Your task to perform on an android device: Check the news Image 0: 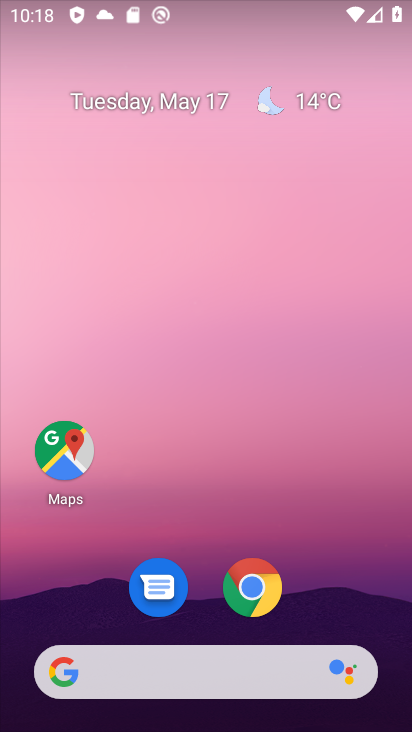
Step 0: click (154, 675)
Your task to perform on an android device: Check the news Image 1: 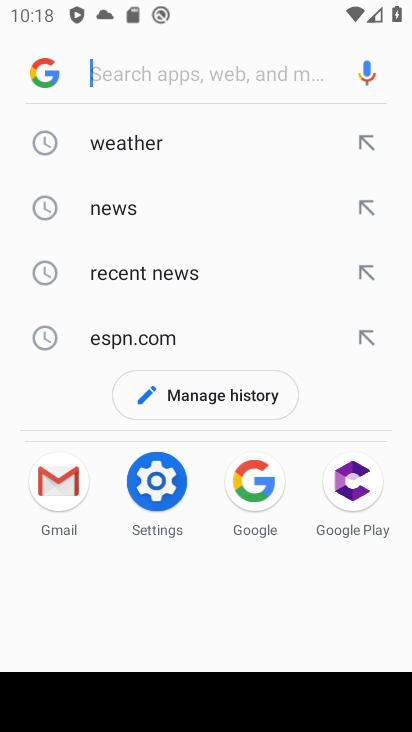
Step 1: click (134, 209)
Your task to perform on an android device: Check the news Image 2: 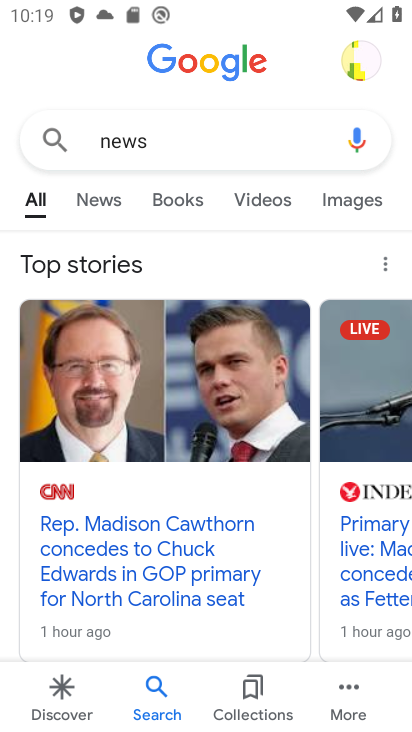
Step 2: click (105, 194)
Your task to perform on an android device: Check the news Image 3: 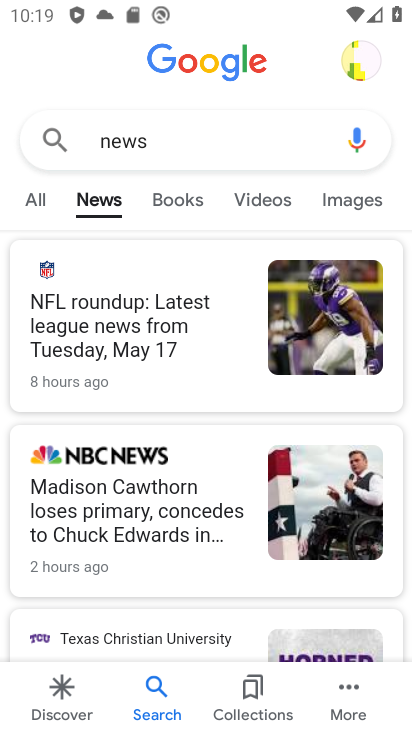
Step 3: task complete